Your task to perform on an android device: Turn off the flashlight Image 0: 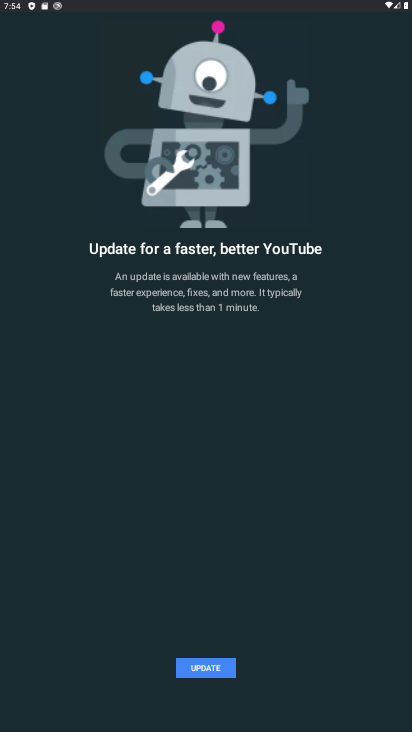
Step 0: press back button
Your task to perform on an android device: Turn off the flashlight Image 1: 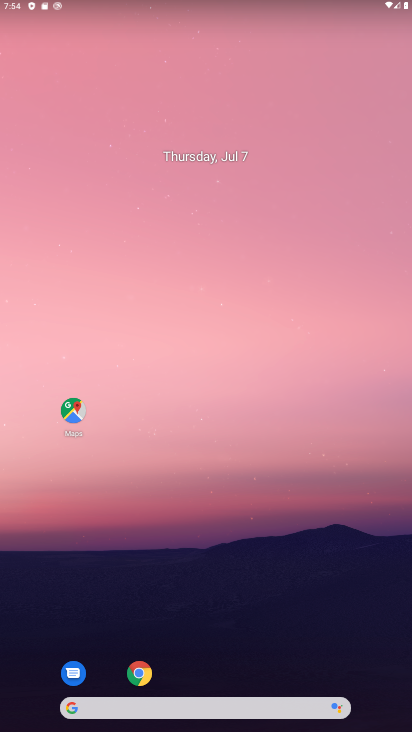
Step 1: drag from (226, 681) to (235, 6)
Your task to perform on an android device: Turn off the flashlight Image 2: 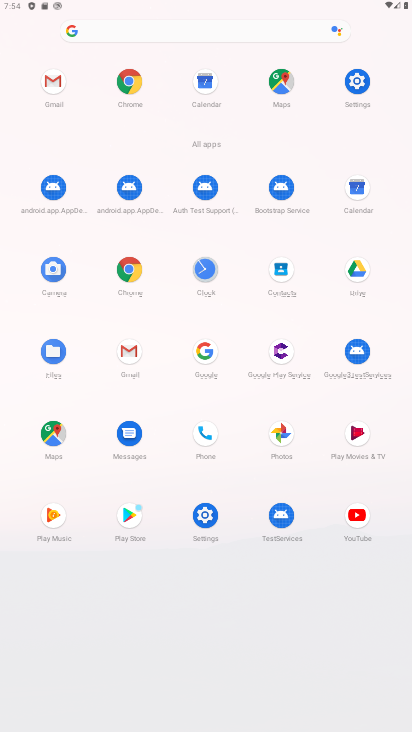
Step 2: click (362, 73)
Your task to perform on an android device: Turn off the flashlight Image 3: 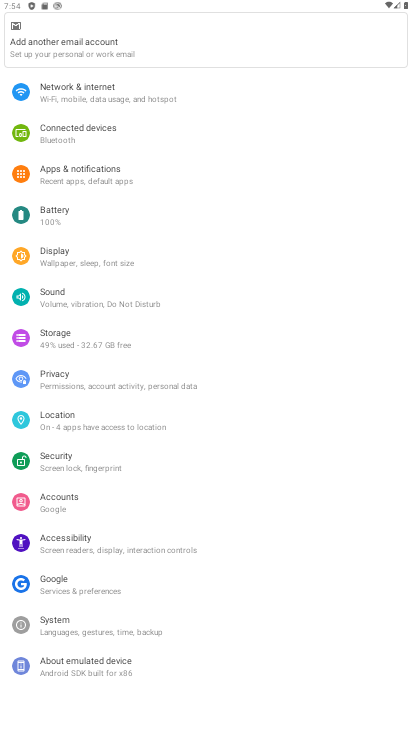
Step 3: task complete